Your task to perform on an android device: Go to display settings Image 0: 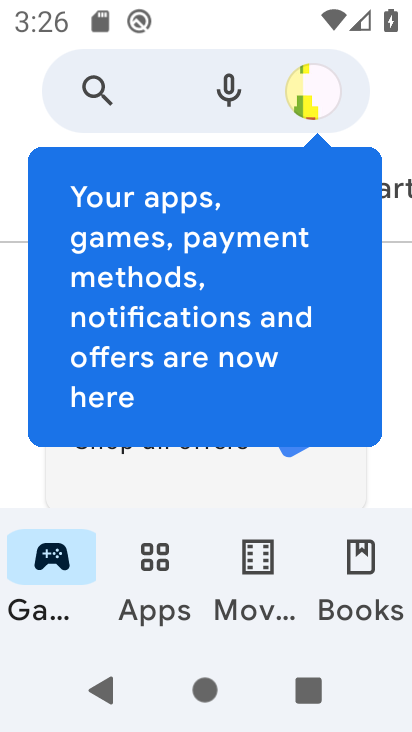
Step 0: press home button
Your task to perform on an android device: Go to display settings Image 1: 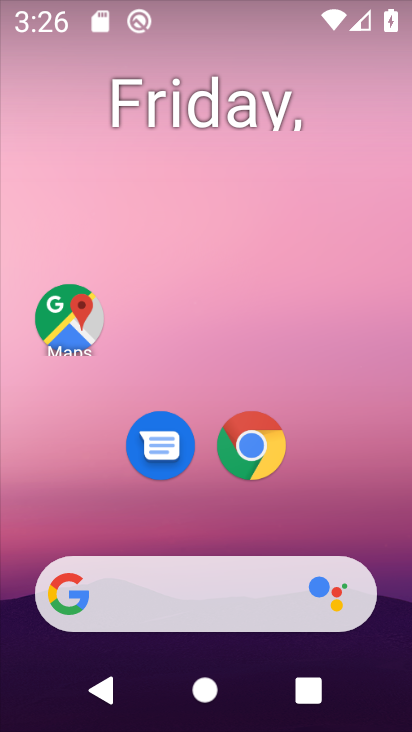
Step 1: drag from (365, 496) to (305, 0)
Your task to perform on an android device: Go to display settings Image 2: 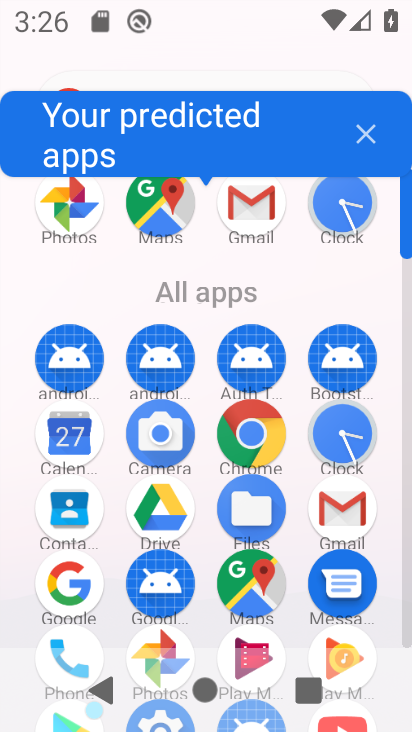
Step 2: click (405, 622)
Your task to perform on an android device: Go to display settings Image 3: 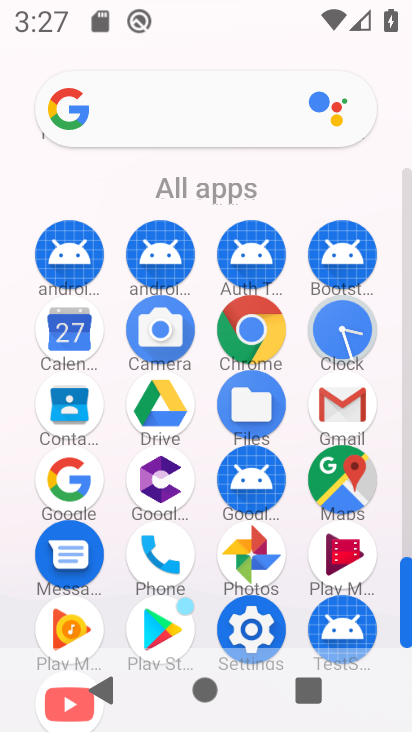
Step 3: click (265, 609)
Your task to perform on an android device: Go to display settings Image 4: 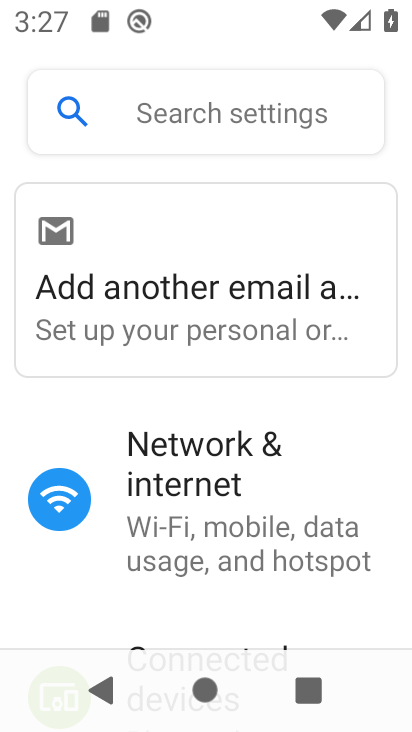
Step 4: drag from (308, 594) to (267, 198)
Your task to perform on an android device: Go to display settings Image 5: 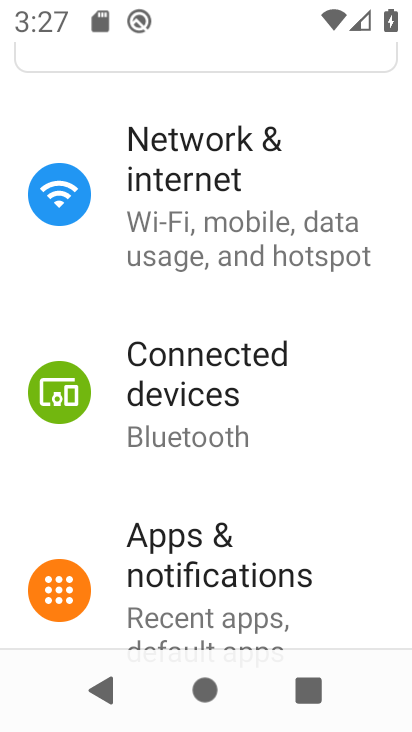
Step 5: drag from (277, 547) to (255, 207)
Your task to perform on an android device: Go to display settings Image 6: 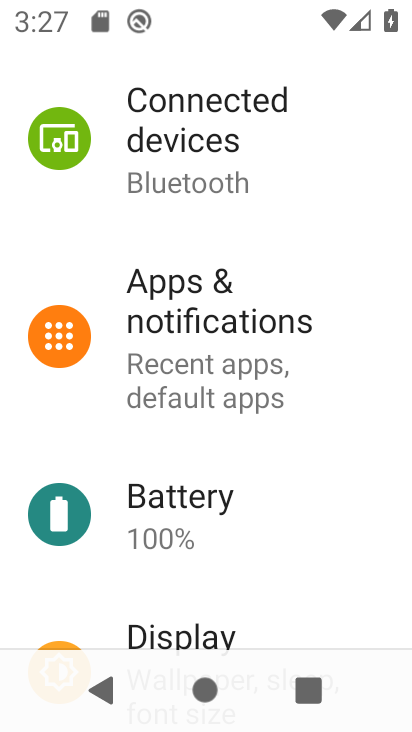
Step 6: click (258, 635)
Your task to perform on an android device: Go to display settings Image 7: 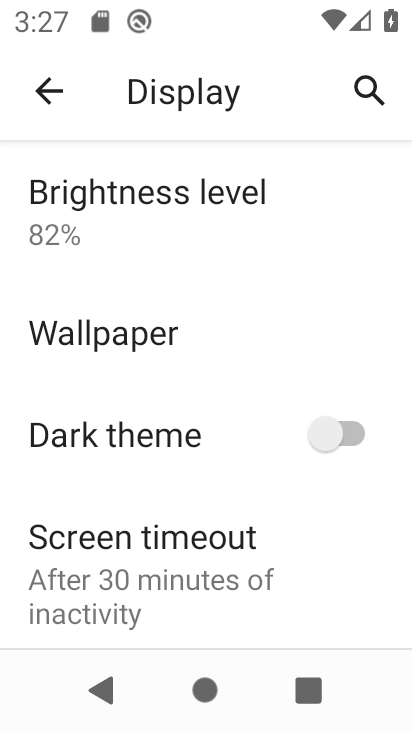
Step 7: task complete